Your task to perform on an android device: Open Yahoo.com Image 0: 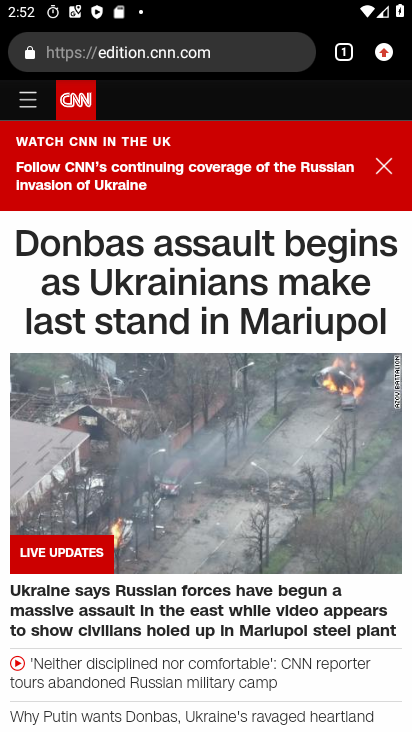
Step 0: click (251, 60)
Your task to perform on an android device: Open Yahoo.com Image 1: 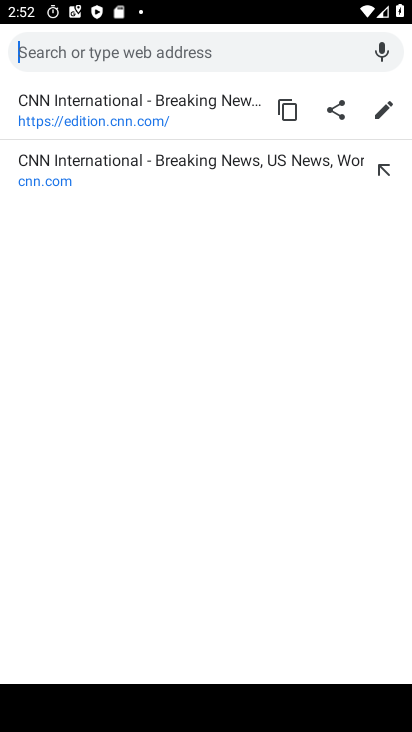
Step 1: type "yahoo.com"
Your task to perform on an android device: Open Yahoo.com Image 2: 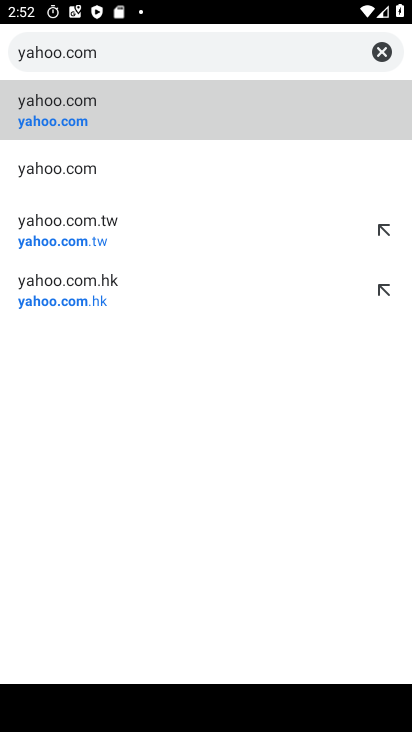
Step 2: click (241, 127)
Your task to perform on an android device: Open Yahoo.com Image 3: 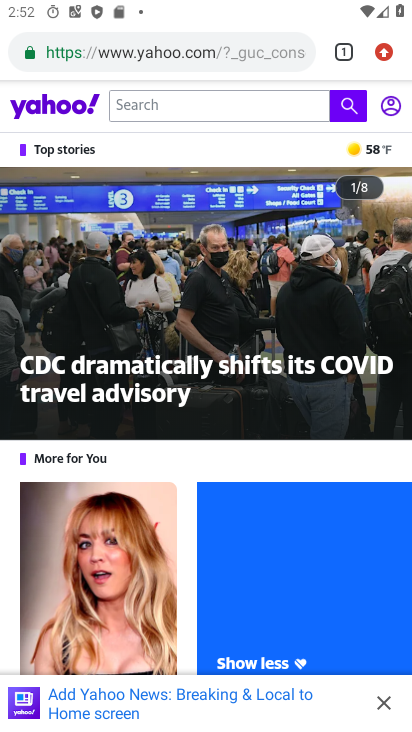
Step 3: task complete